Your task to perform on an android device: turn off airplane mode Image 0: 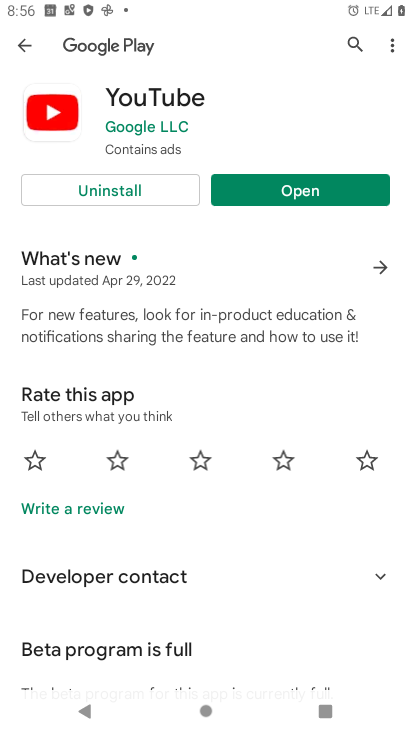
Step 0: press home button
Your task to perform on an android device: turn off airplane mode Image 1: 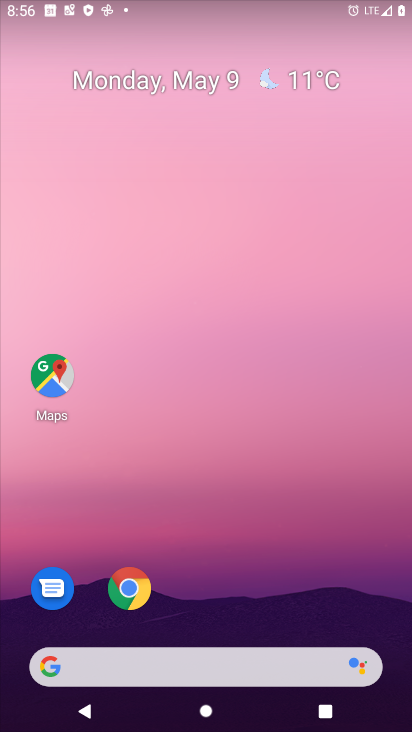
Step 1: task complete